Your task to perform on an android device: open device folders in google photos Image 0: 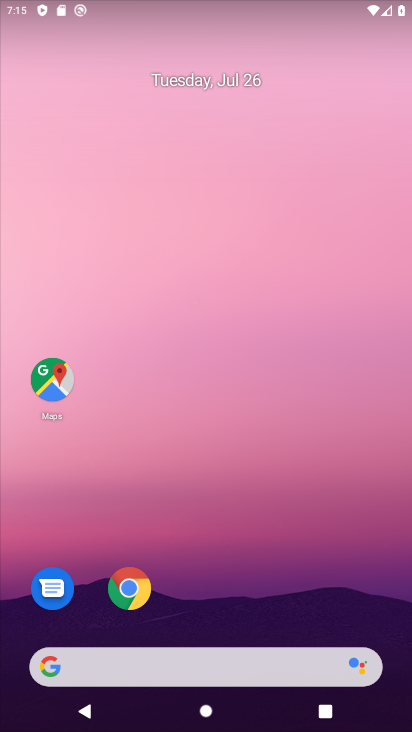
Step 0: drag from (240, 489) to (229, 119)
Your task to perform on an android device: open device folders in google photos Image 1: 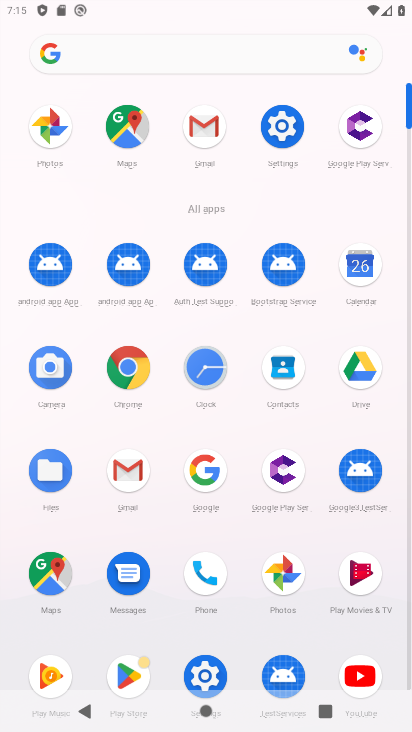
Step 1: click (276, 568)
Your task to perform on an android device: open device folders in google photos Image 2: 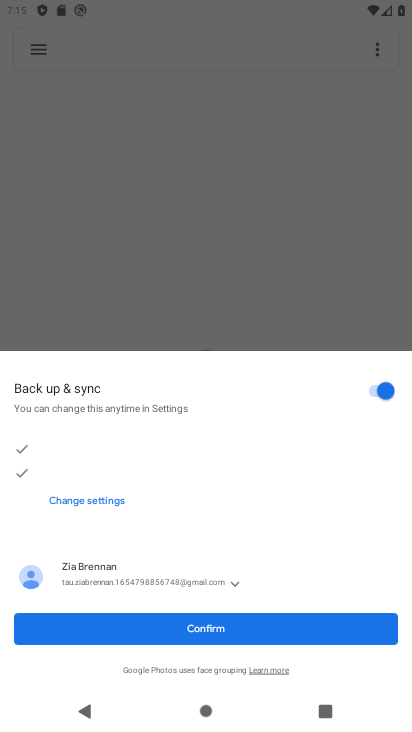
Step 2: task complete